Your task to perform on an android device: empty trash in google photos Image 0: 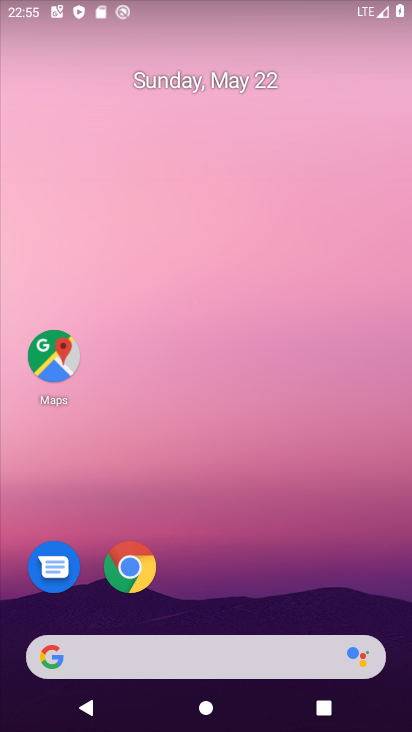
Step 0: drag from (293, 567) to (314, 6)
Your task to perform on an android device: empty trash in google photos Image 1: 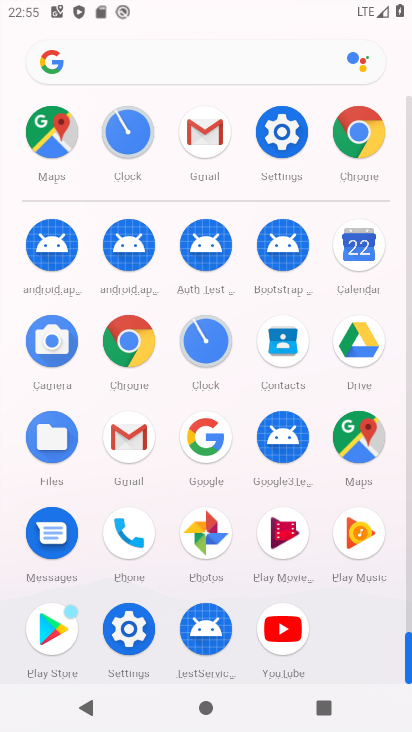
Step 1: click (209, 533)
Your task to perform on an android device: empty trash in google photos Image 2: 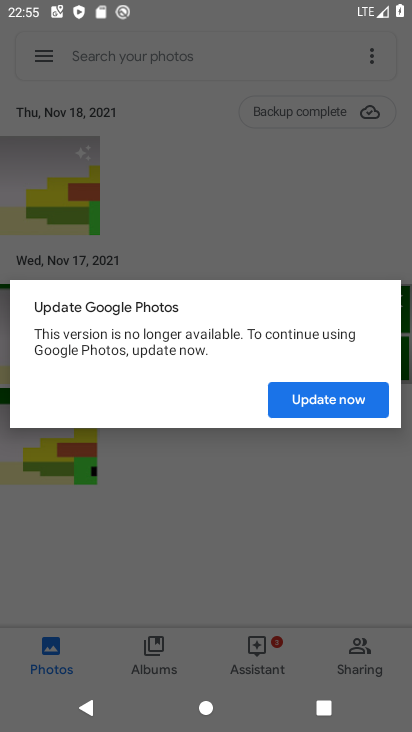
Step 2: click (334, 406)
Your task to perform on an android device: empty trash in google photos Image 3: 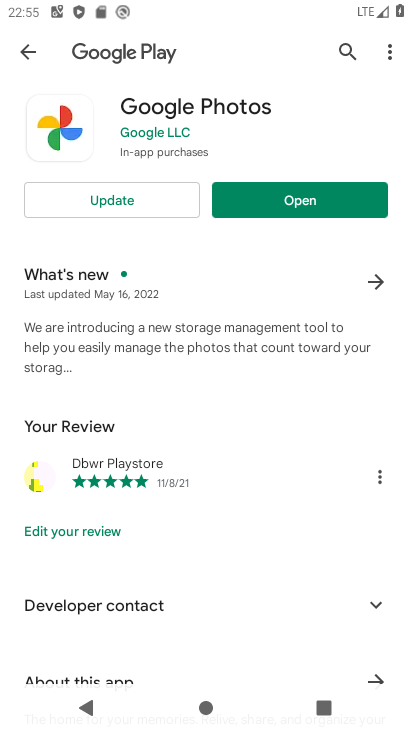
Step 3: click (100, 203)
Your task to perform on an android device: empty trash in google photos Image 4: 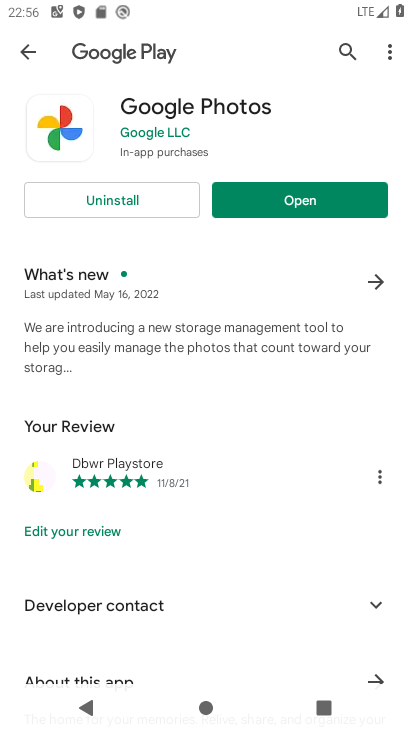
Step 4: click (301, 196)
Your task to perform on an android device: empty trash in google photos Image 5: 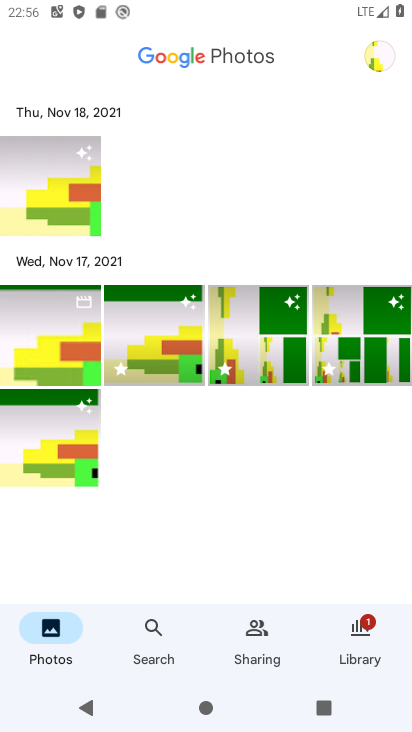
Step 5: click (381, 50)
Your task to perform on an android device: empty trash in google photos Image 6: 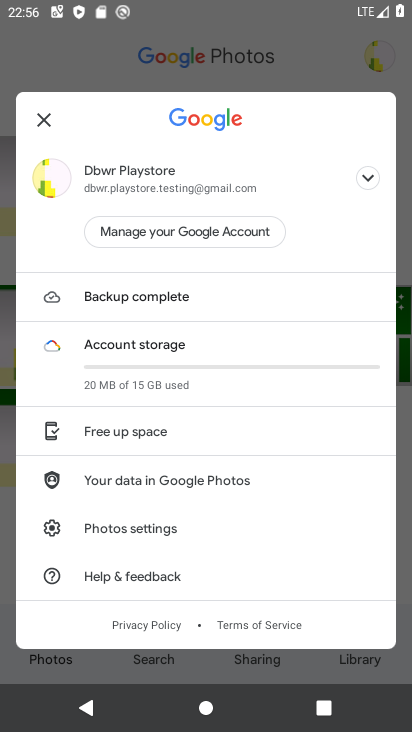
Step 6: click (124, 528)
Your task to perform on an android device: empty trash in google photos Image 7: 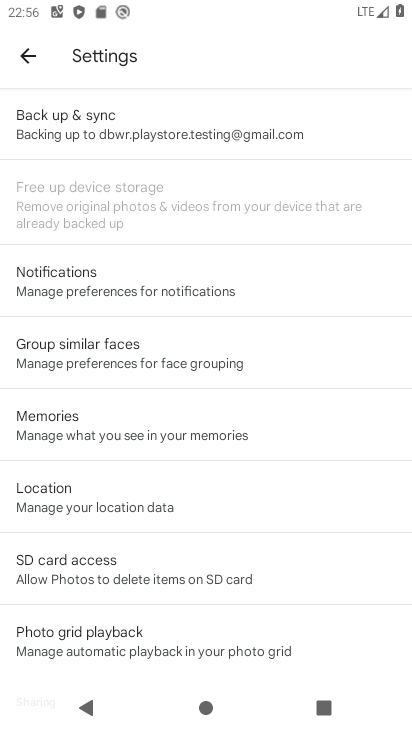
Step 7: click (27, 53)
Your task to perform on an android device: empty trash in google photos Image 8: 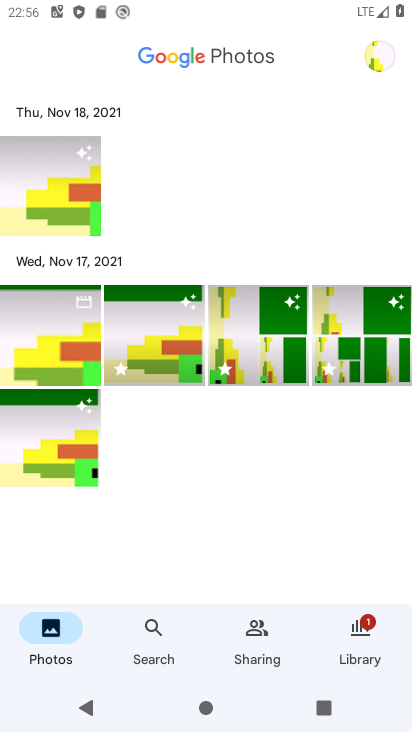
Step 8: click (374, 641)
Your task to perform on an android device: empty trash in google photos Image 9: 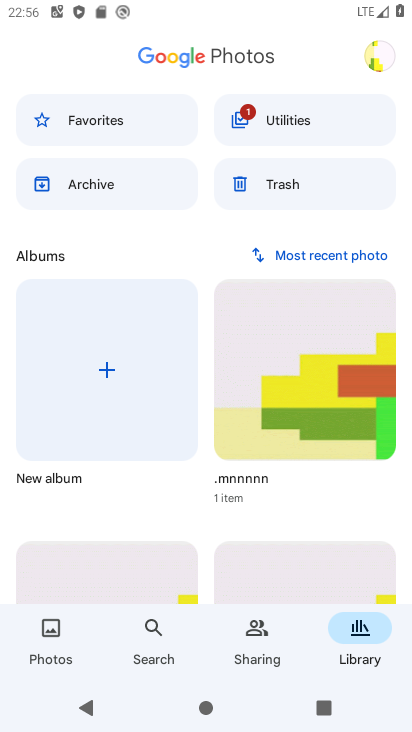
Step 9: click (272, 180)
Your task to perform on an android device: empty trash in google photos Image 10: 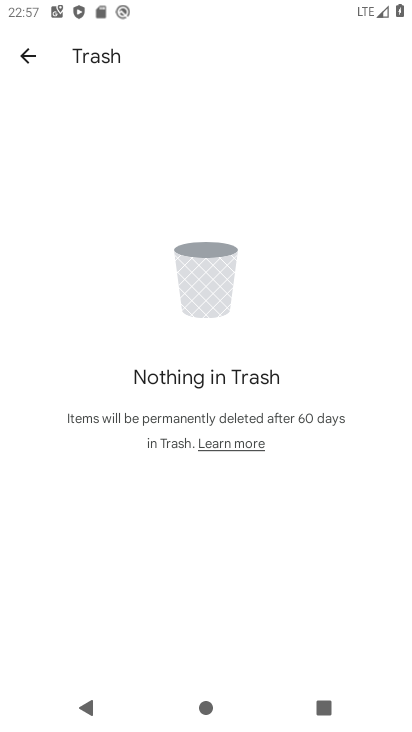
Step 10: task complete